Your task to perform on an android device: toggle data saver in the chrome app Image 0: 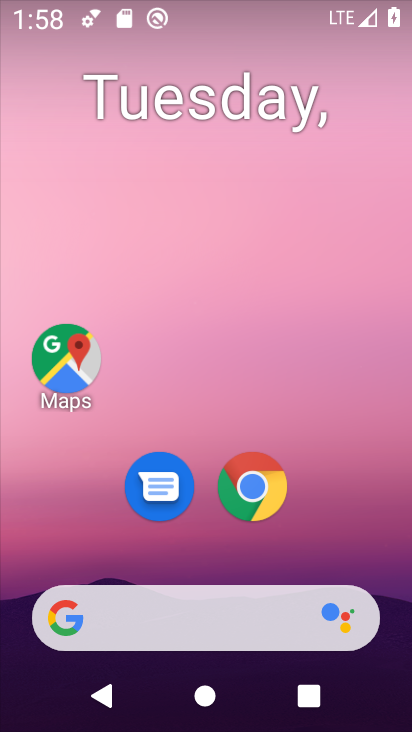
Step 0: press home button
Your task to perform on an android device: toggle data saver in the chrome app Image 1: 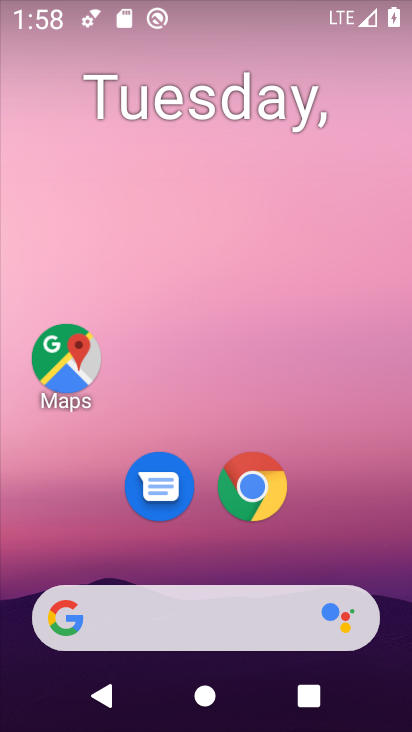
Step 1: drag from (358, 509) to (372, 85)
Your task to perform on an android device: toggle data saver in the chrome app Image 2: 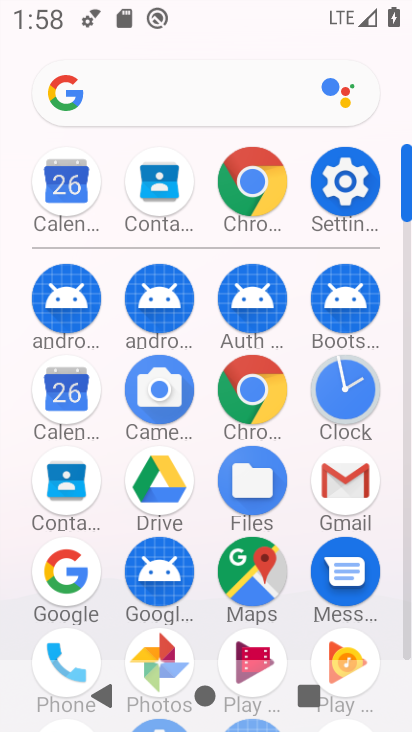
Step 2: click (262, 386)
Your task to perform on an android device: toggle data saver in the chrome app Image 3: 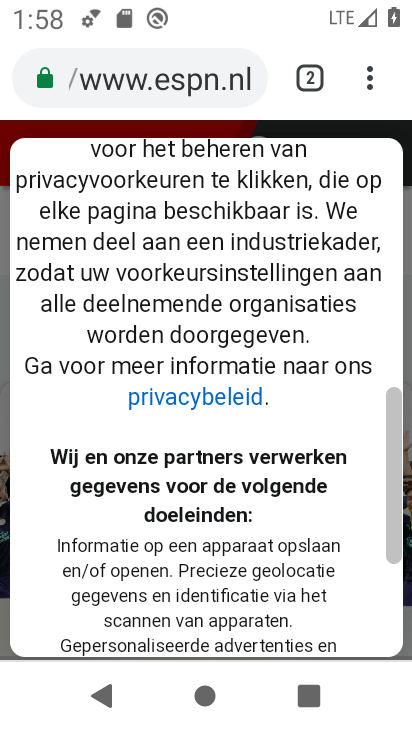
Step 3: click (368, 78)
Your task to perform on an android device: toggle data saver in the chrome app Image 4: 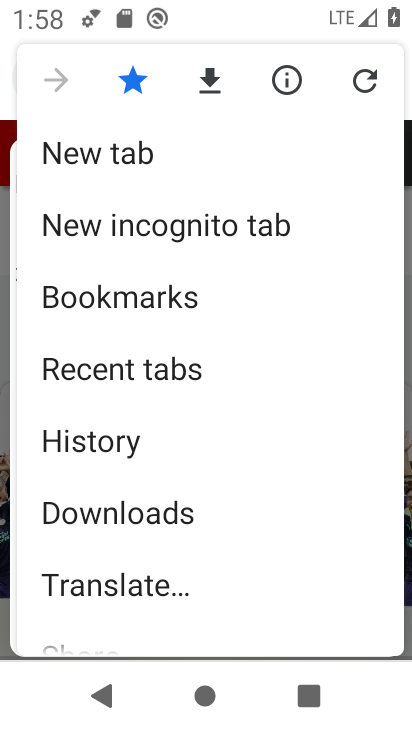
Step 4: drag from (348, 390) to (350, 305)
Your task to perform on an android device: toggle data saver in the chrome app Image 5: 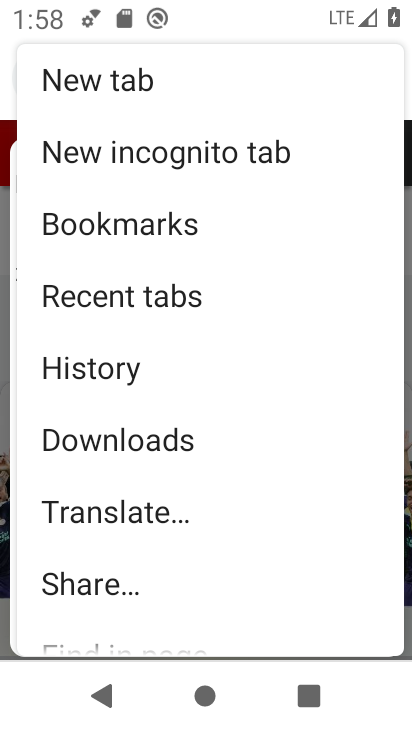
Step 5: drag from (335, 441) to (335, 360)
Your task to perform on an android device: toggle data saver in the chrome app Image 6: 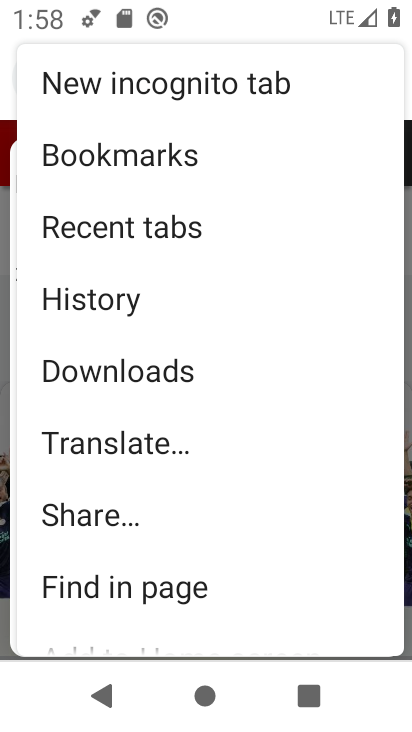
Step 6: drag from (332, 424) to (331, 347)
Your task to perform on an android device: toggle data saver in the chrome app Image 7: 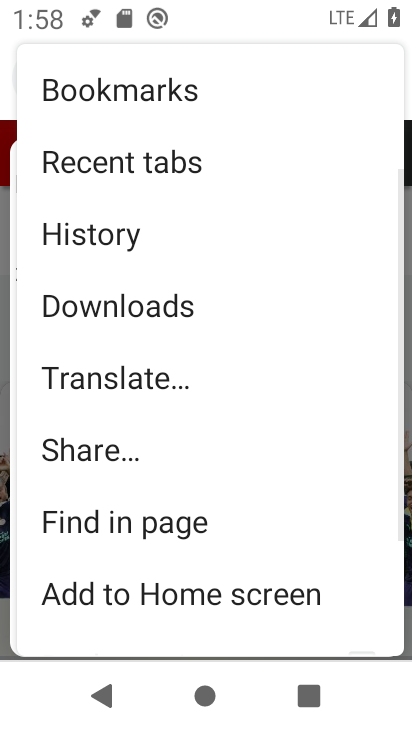
Step 7: drag from (314, 453) to (313, 346)
Your task to perform on an android device: toggle data saver in the chrome app Image 8: 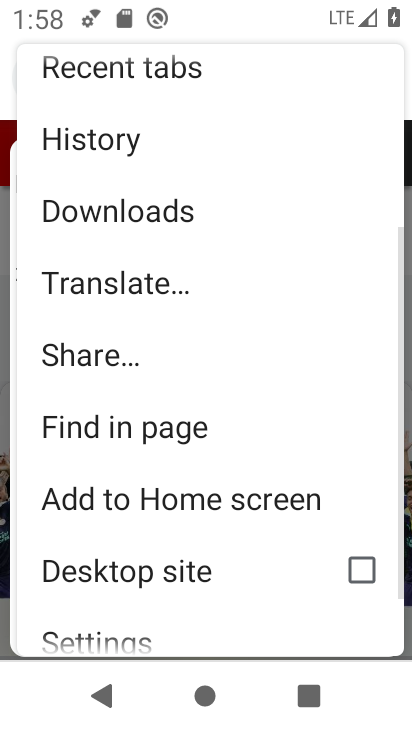
Step 8: drag from (292, 453) to (290, 311)
Your task to perform on an android device: toggle data saver in the chrome app Image 9: 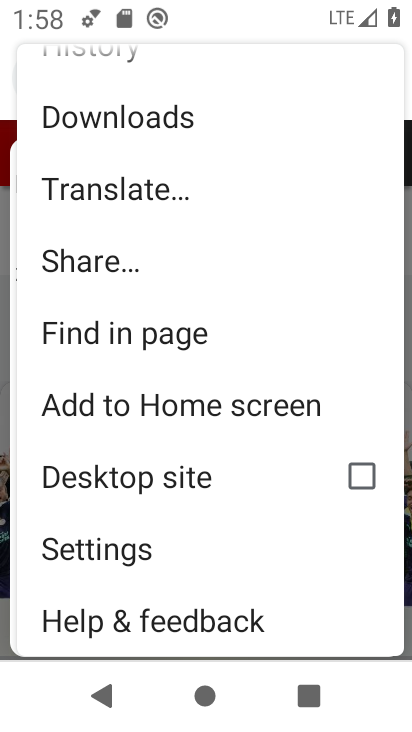
Step 9: drag from (282, 476) to (282, 372)
Your task to perform on an android device: toggle data saver in the chrome app Image 10: 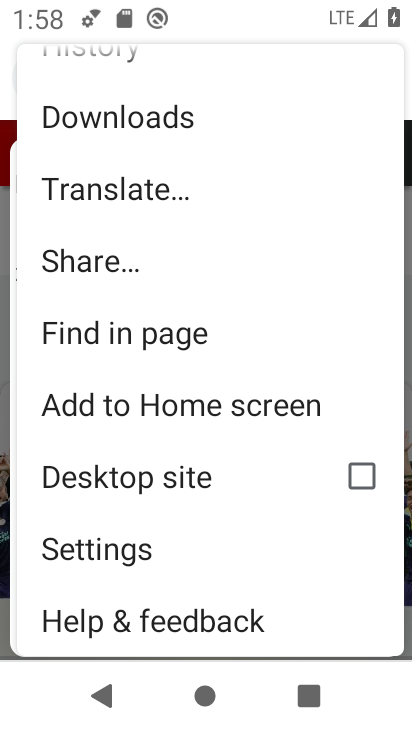
Step 10: click (251, 537)
Your task to perform on an android device: toggle data saver in the chrome app Image 11: 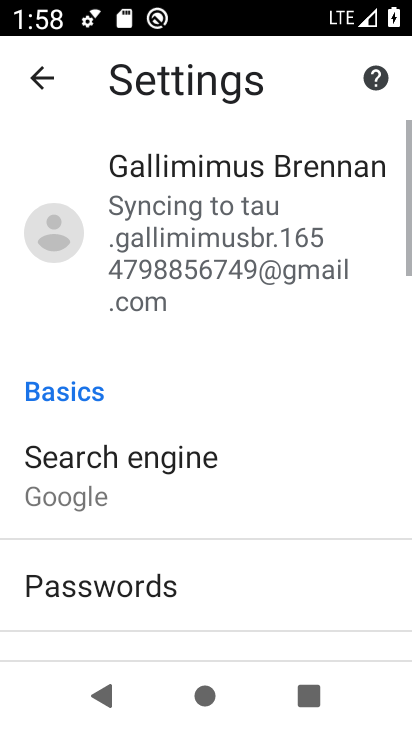
Step 11: drag from (251, 537) to (255, 450)
Your task to perform on an android device: toggle data saver in the chrome app Image 12: 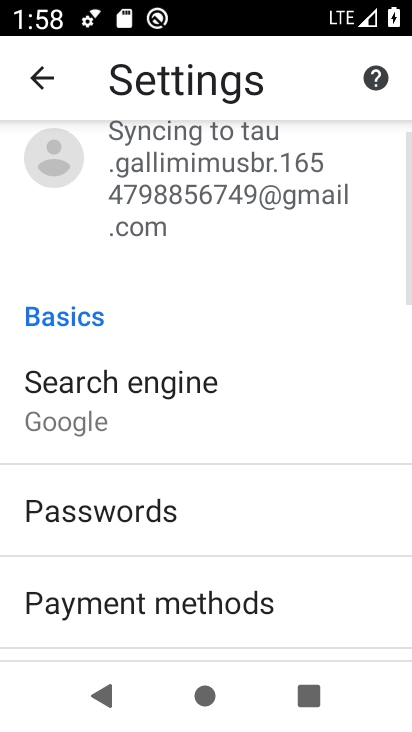
Step 12: drag from (262, 517) to (271, 418)
Your task to perform on an android device: toggle data saver in the chrome app Image 13: 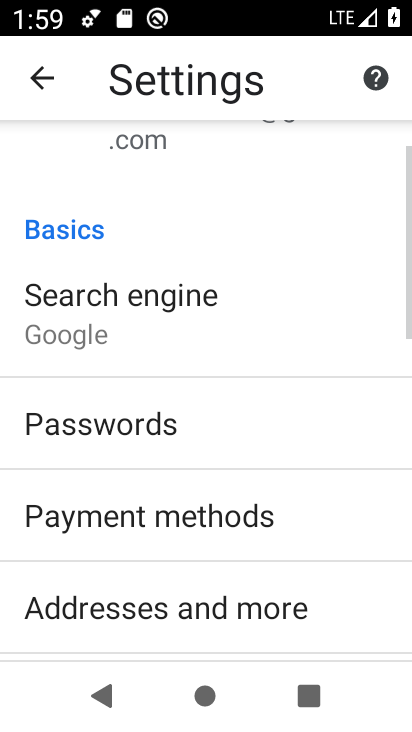
Step 13: drag from (301, 539) to (307, 426)
Your task to perform on an android device: toggle data saver in the chrome app Image 14: 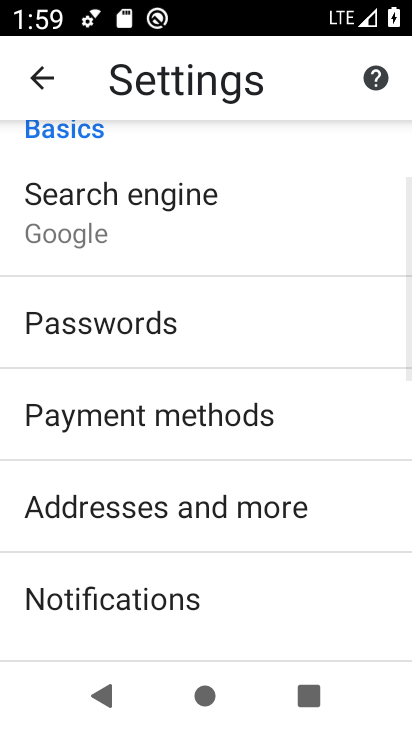
Step 14: drag from (329, 568) to (334, 454)
Your task to perform on an android device: toggle data saver in the chrome app Image 15: 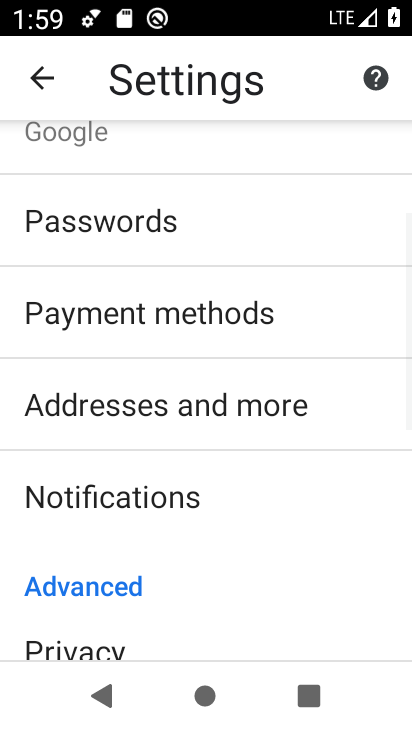
Step 15: drag from (343, 569) to (345, 450)
Your task to perform on an android device: toggle data saver in the chrome app Image 16: 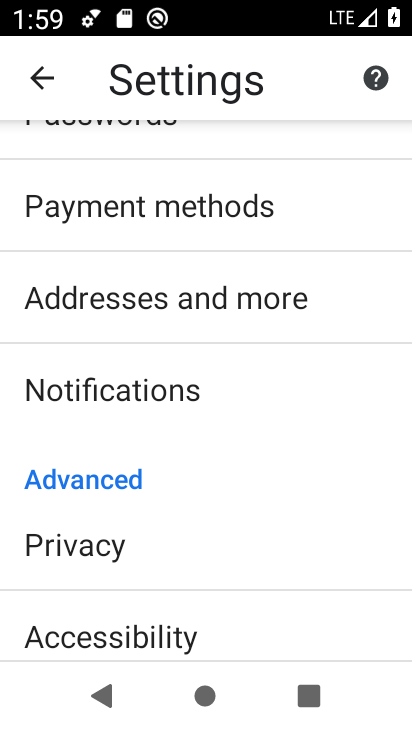
Step 16: drag from (328, 559) to (328, 444)
Your task to perform on an android device: toggle data saver in the chrome app Image 17: 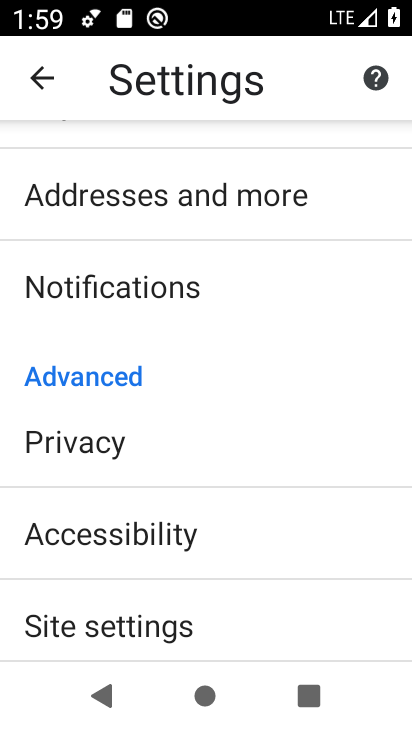
Step 17: drag from (329, 571) to (326, 448)
Your task to perform on an android device: toggle data saver in the chrome app Image 18: 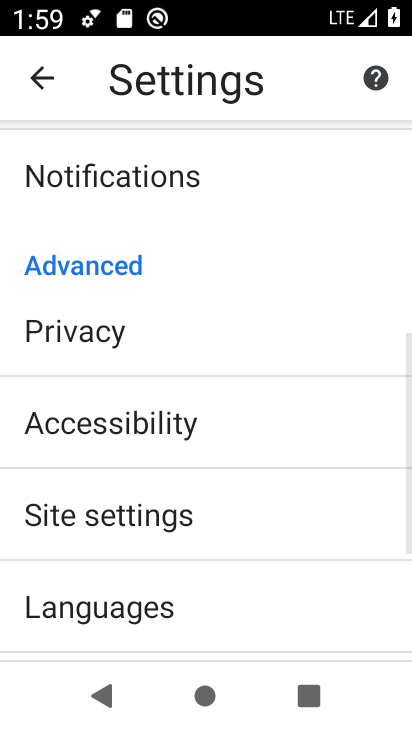
Step 18: drag from (331, 566) to (332, 442)
Your task to perform on an android device: toggle data saver in the chrome app Image 19: 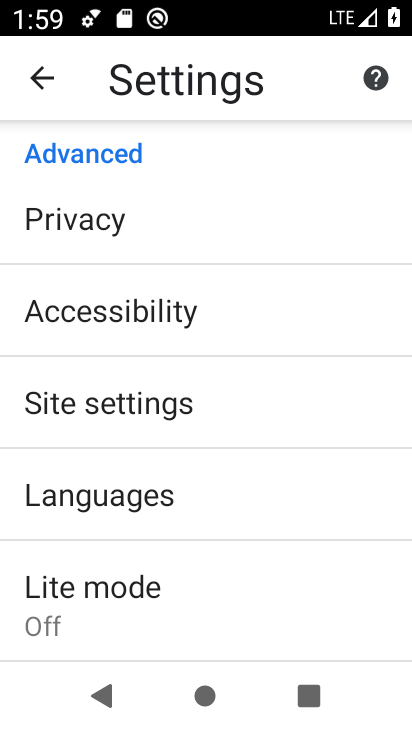
Step 19: drag from (321, 530) to (318, 435)
Your task to perform on an android device: toggle data saver in the chrome app Image 20: 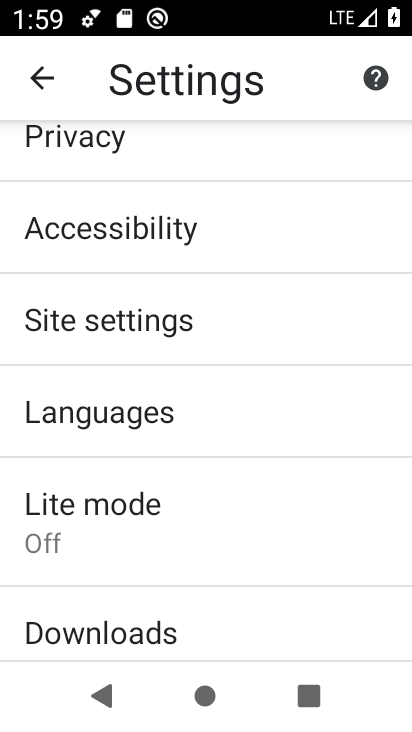
Step 20: drag from (304, 541) to (301, 404)
Your task to perform on an android device: toggle data saver in the chrome app Image 21: 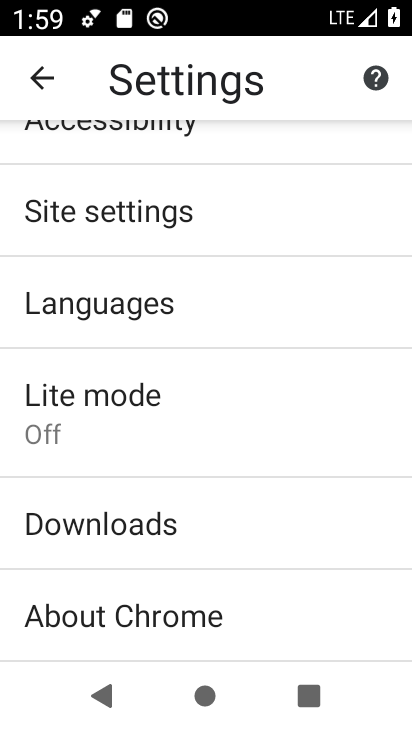
Step 21: click (257, 415)
Your task to perform on an android device: toggle data saver in the chrome app Image 22: 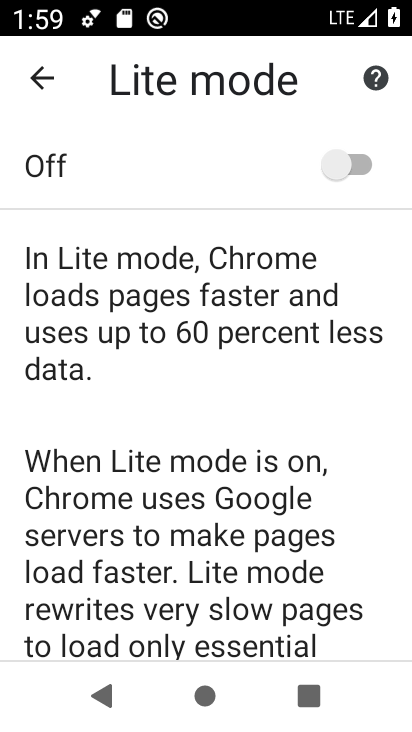
Step 22: click (348, 170)
Your task to perform on an android device: toggle data saver in the chrome app Image 23: 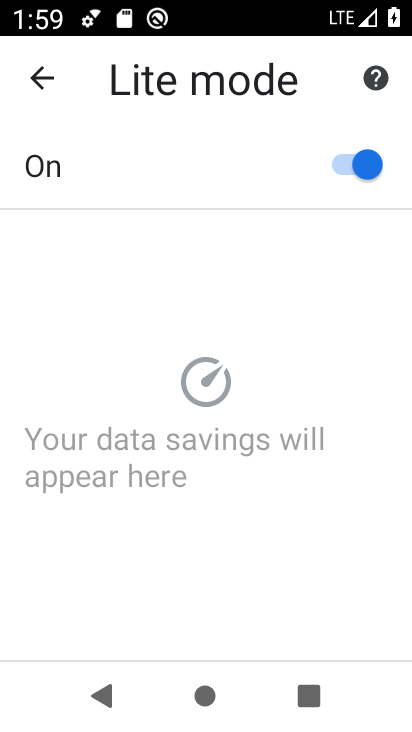
Step 23: task complete